Your task to perform on an android device: Clear the shopping cart on newegg.com. Search for alienware aurora on newegg.com, select the first entry, add it to the cart, then select checkout. Image 0: 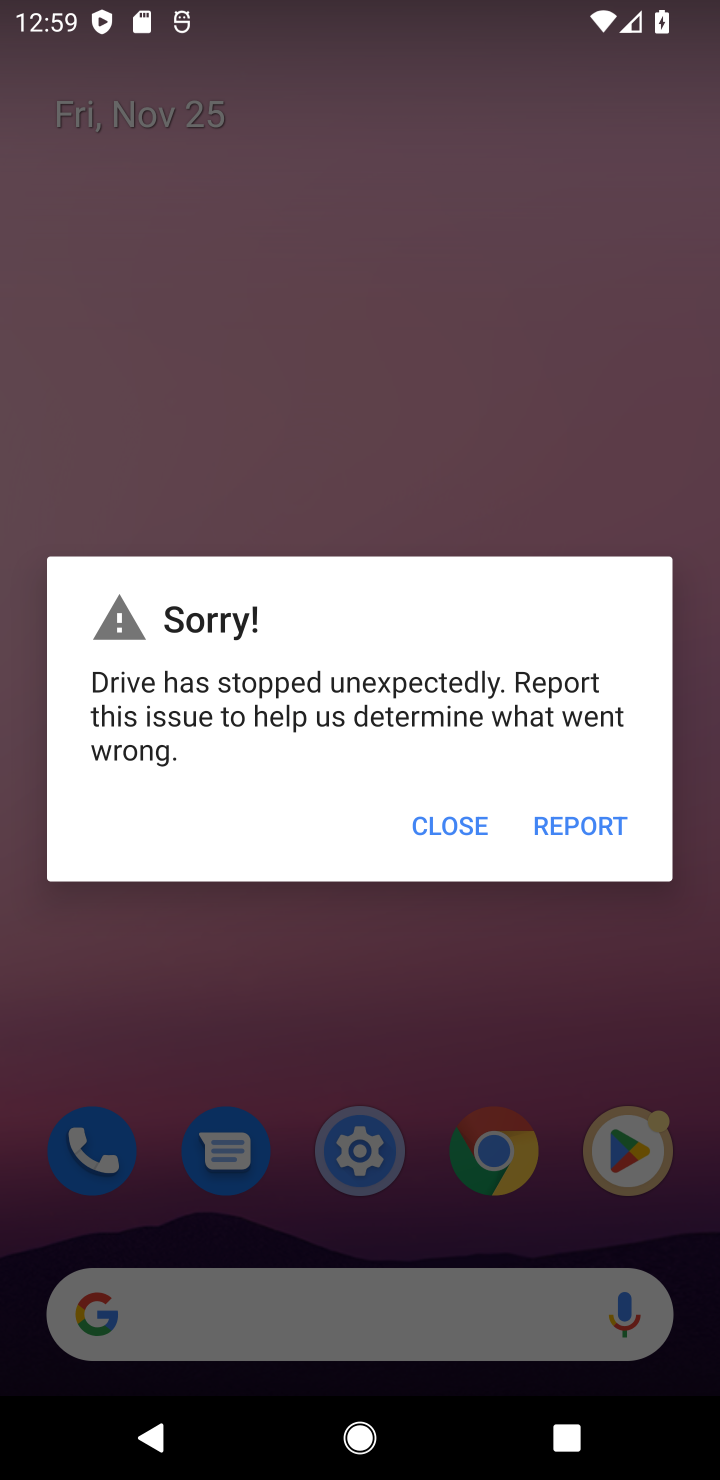
Step 0: click (471, 832)
Your task to perform on an android device: Clear the shopping cart on newegg.com. Search for alienware aurora on newegg.com, select the first entry, add it to the cart, then select checkout. Image 1: 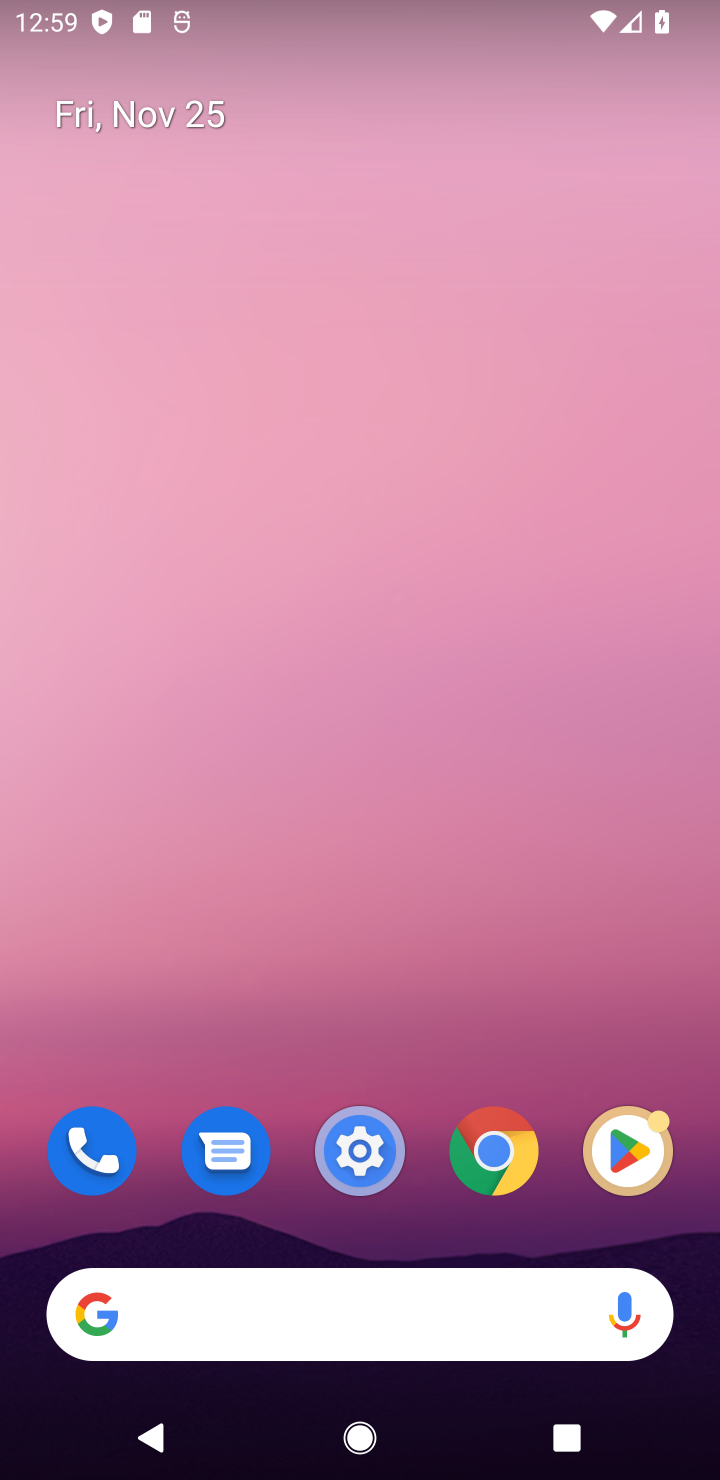
Step 1: click (421, 1295)
Your task to perform on an android device: Clear the shopping cart on newegg.com. Search for alienware aurora on newegg.com, select the first entry, add it to the cart, then select checkout. Image 2: 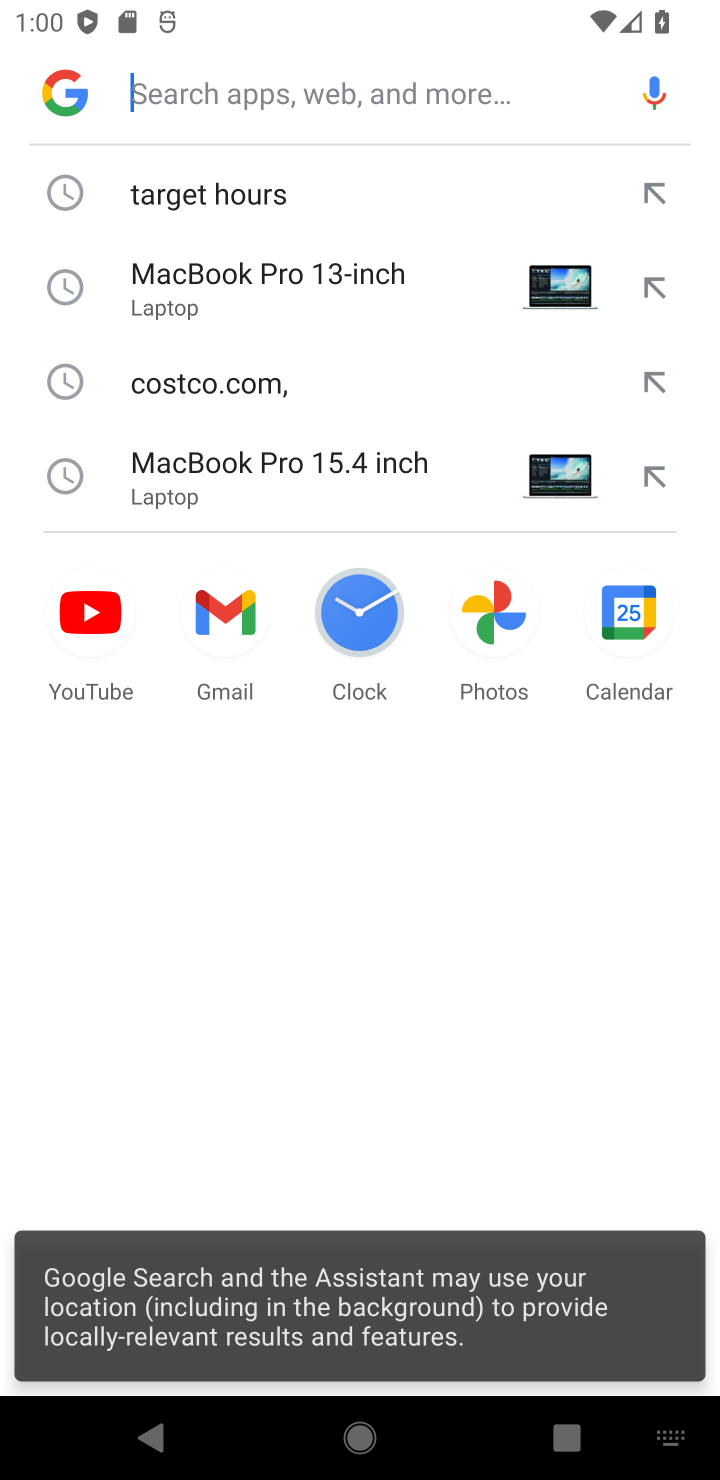
Step 2: type "newegg.com"
Your task to perform on an android device: Clear the shopping cart on newegg.com. Search for alienware aurora on newegg.com, select the first entry, add it to the cart, then select checkout. Image 3: 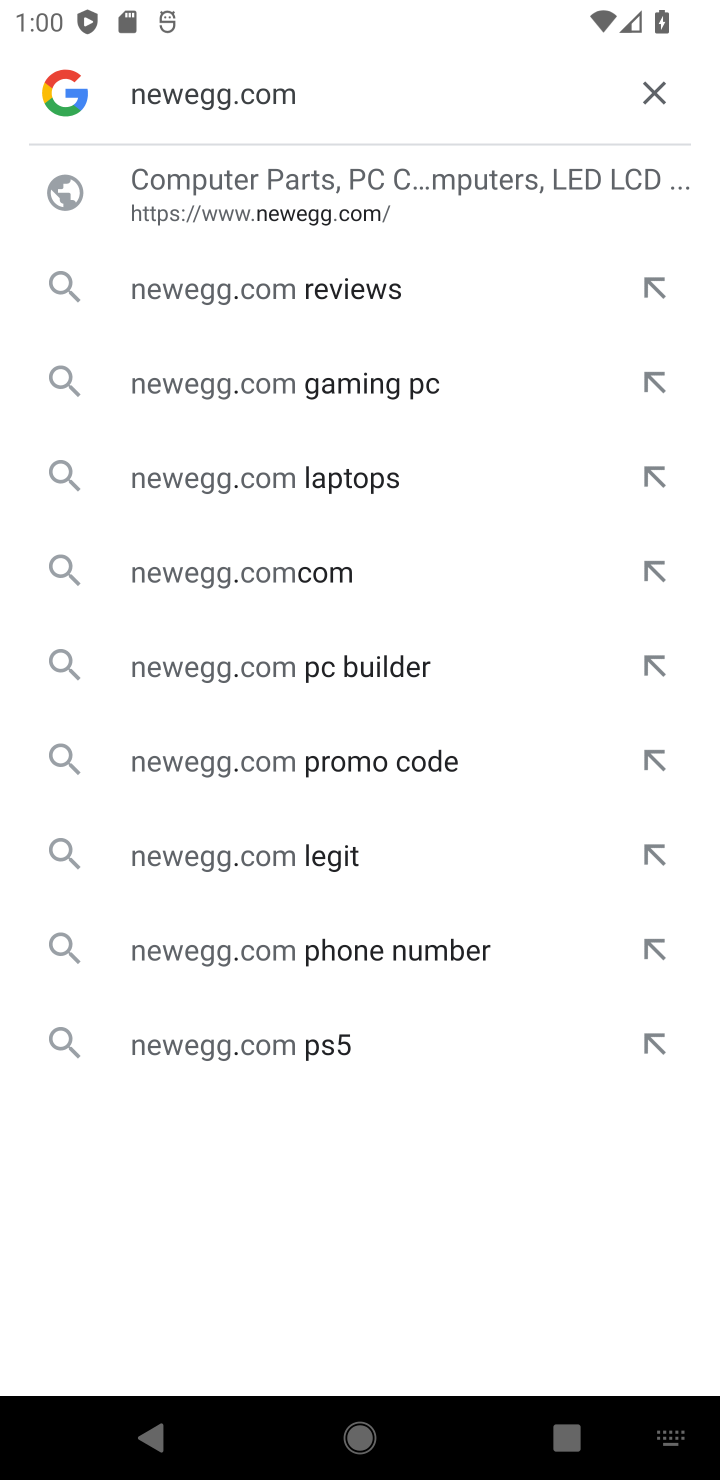
Step 3: click (168, 173)
Your task to perform on an android device: Clear the shopping cart on newegg.com. Search for alienware aurora on newegg.com, select the first entry, add it to the cart, then select checkout. Image 4: 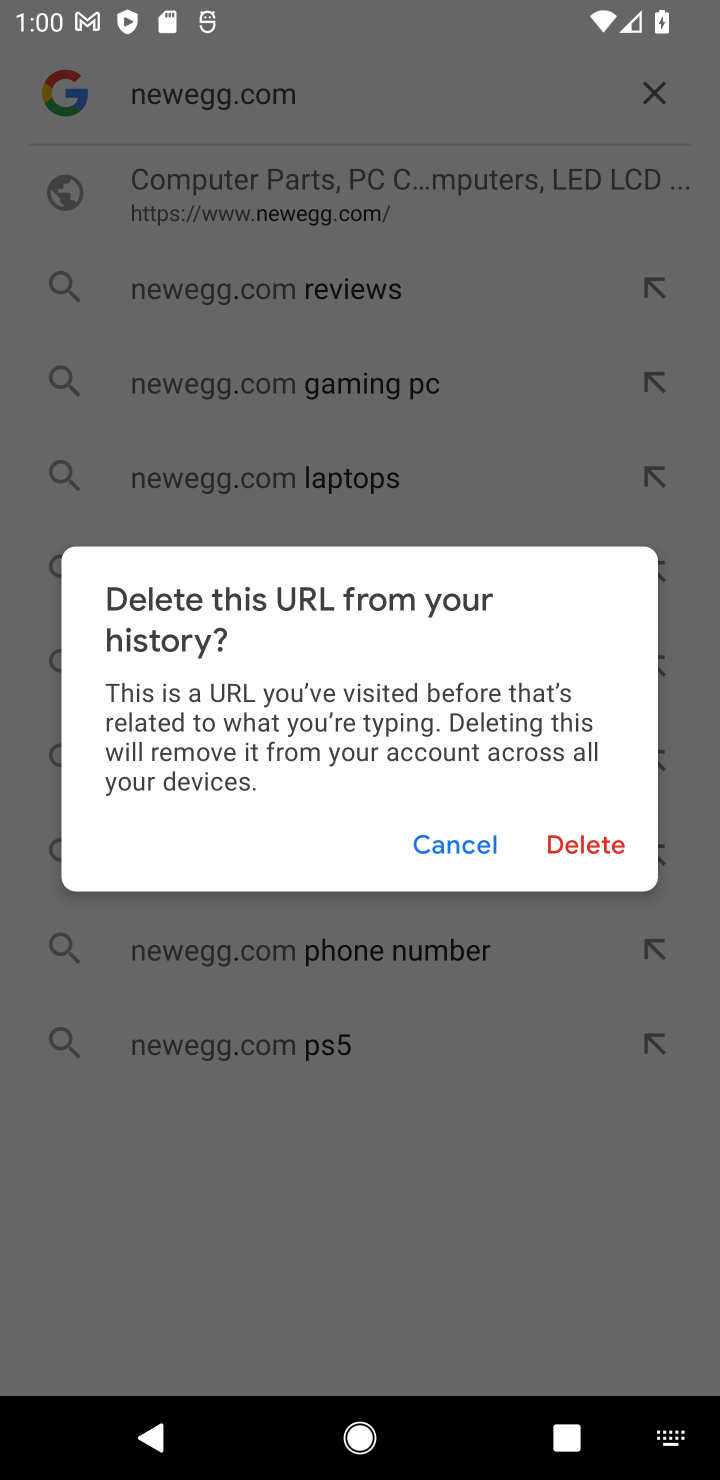
Step 4: click (480, 840)
Your task to perform on an android device: Clear the shopping cart on newegg.com. Search for alienware aurora on newegg.com, select the first entry, add it to the cart, then select checkout. Image 5: 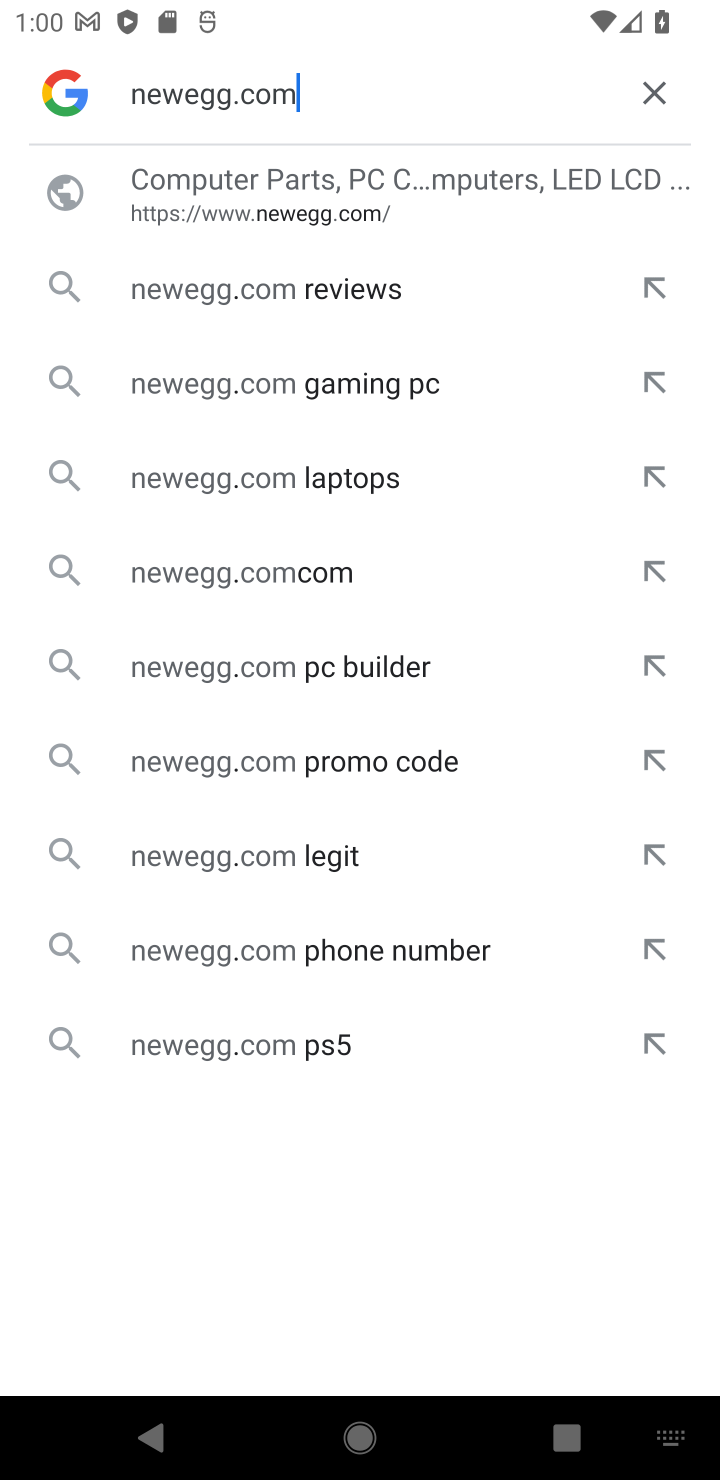
Step 5: click (277, 203)
Your task to perform on an android device: Clear the shopping cart on newegg.com. Search for alienware aurora on newegg.com, select the first entry, add it to the cart, then select checkout. Image 6: 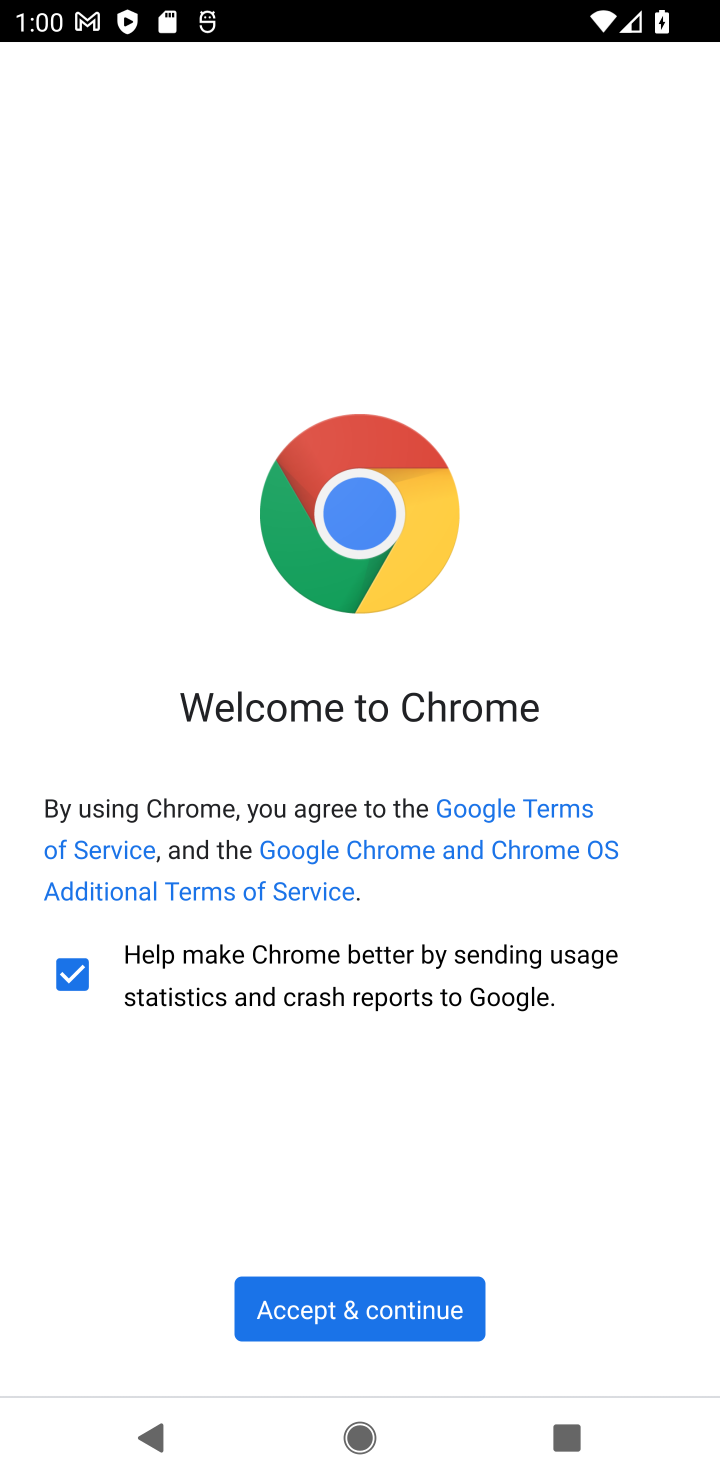
Step 6: click (406, 1317)
Your task to perform on an android device: Clear the shopping cart on newegg.com. Search for alienware aurora on newegg.com, select the first entry, add it to the cart, then select checkout. Image 7: 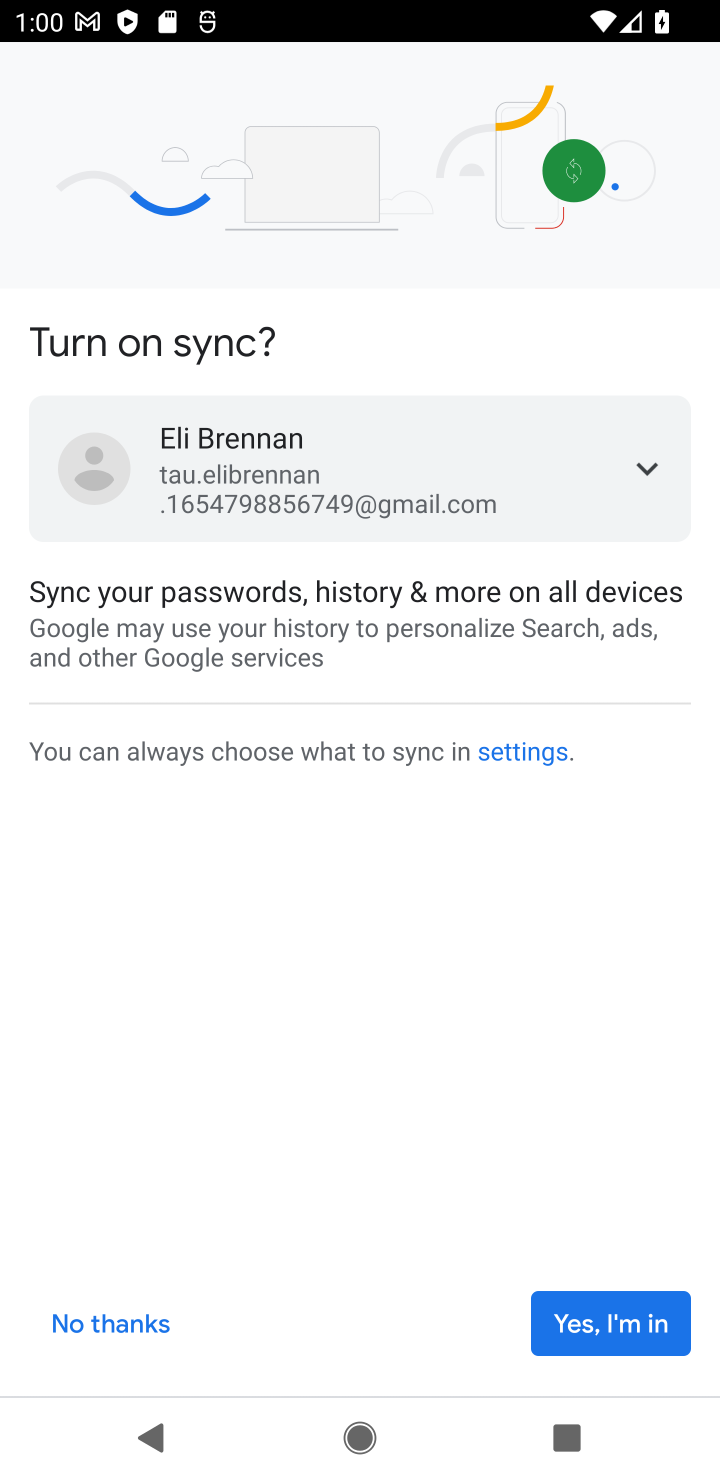
Step 7: click (645, 1314)
Your task to perform on an android device: Clear the shopping cart on newegg.com. Search for alienware aurora on newegg.com, select the first entry, add it to the cart, then select checkout. Image 8: 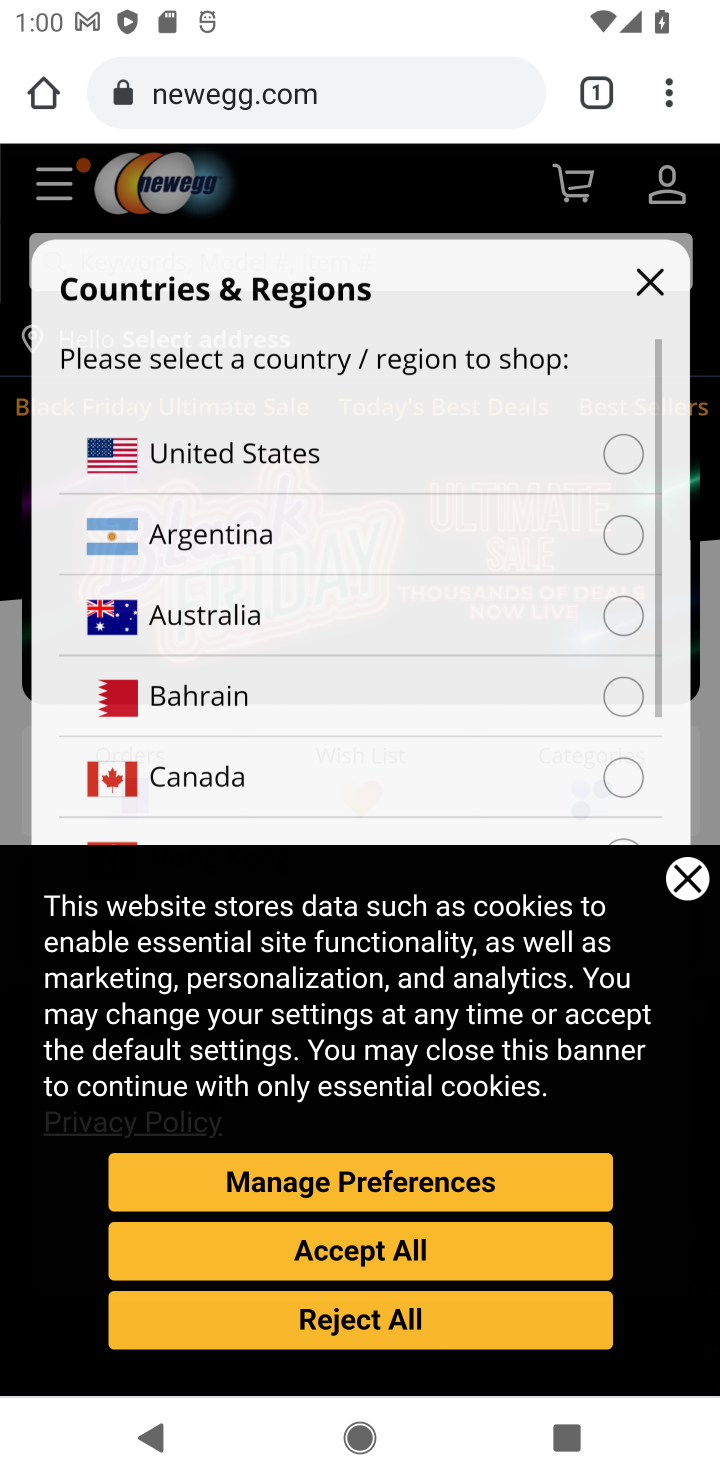
Step 8: click (680, 892)
Your task to perform on an android device: Clear the shopping cart on newegg.com. Search for alienware aurora on newegg.com, select the first entry, add it to the cart, then select checkout. Image 9: 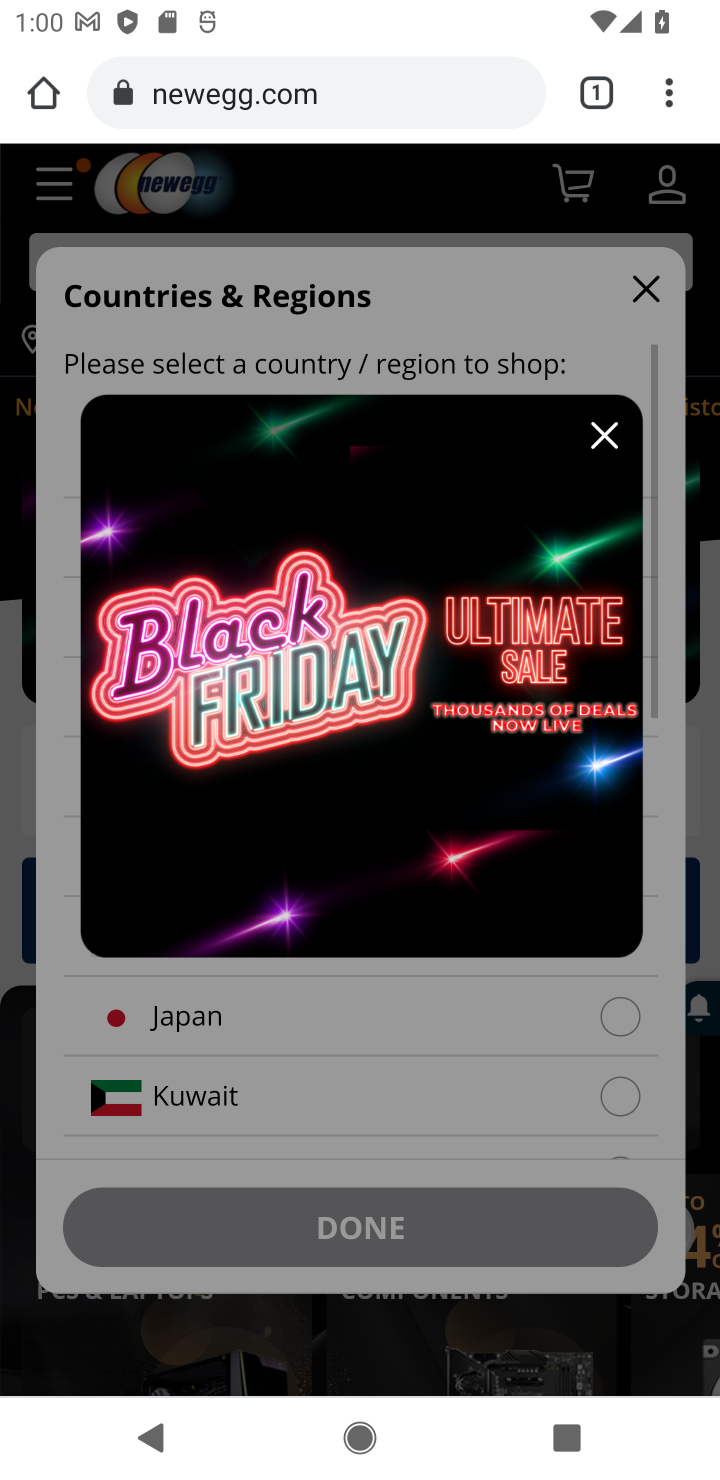
Step 9: press home button
Your task to perform on an android device: Clear the shopping cart on newegg.com. Search for alienware aurora on newegg.com, select the first entry, add it to the cart, then select checkout. Image 10: 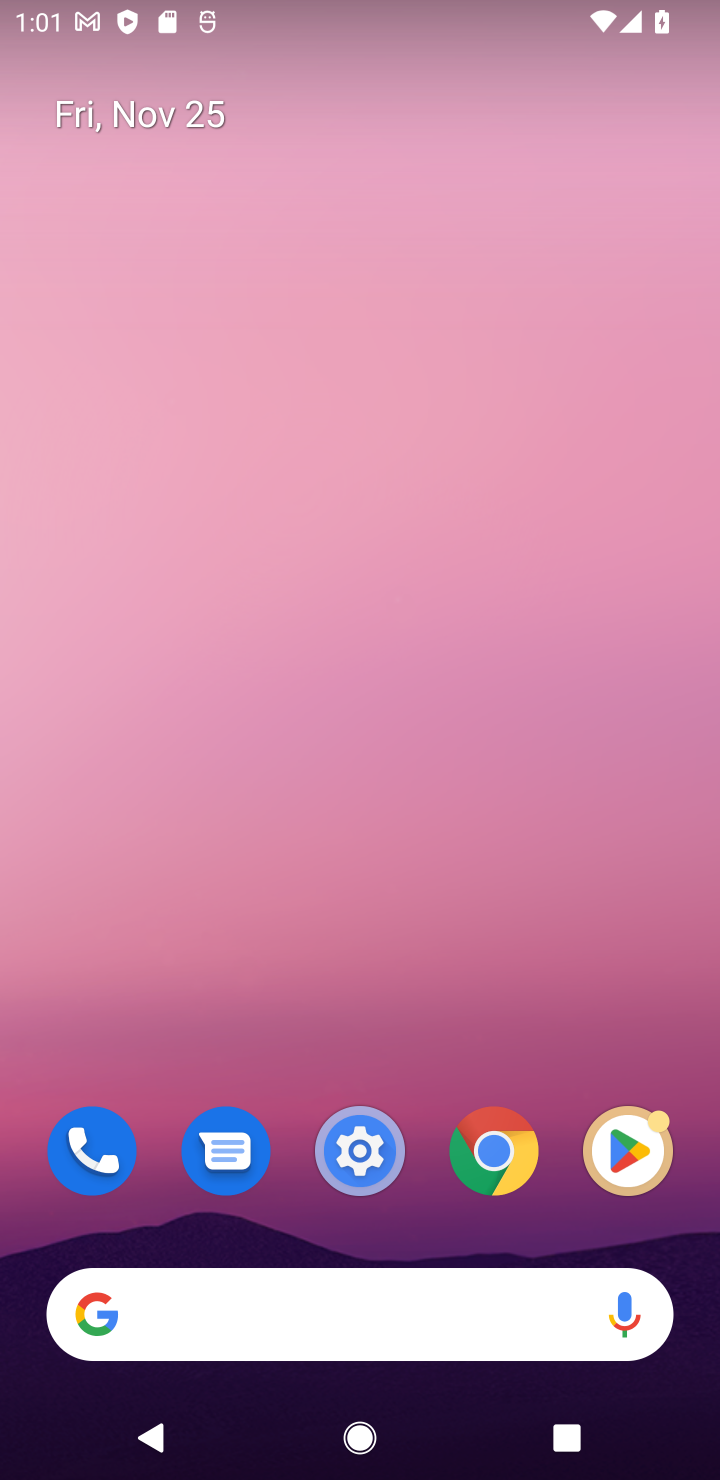
Step 10: click (373, 1294)
Your task to perform on an android device: Clear the shopping cart on newegg.com. Search for alienware aurora on newegg.com, select the first entry, add it to the cart, then select checkout. Image 11: 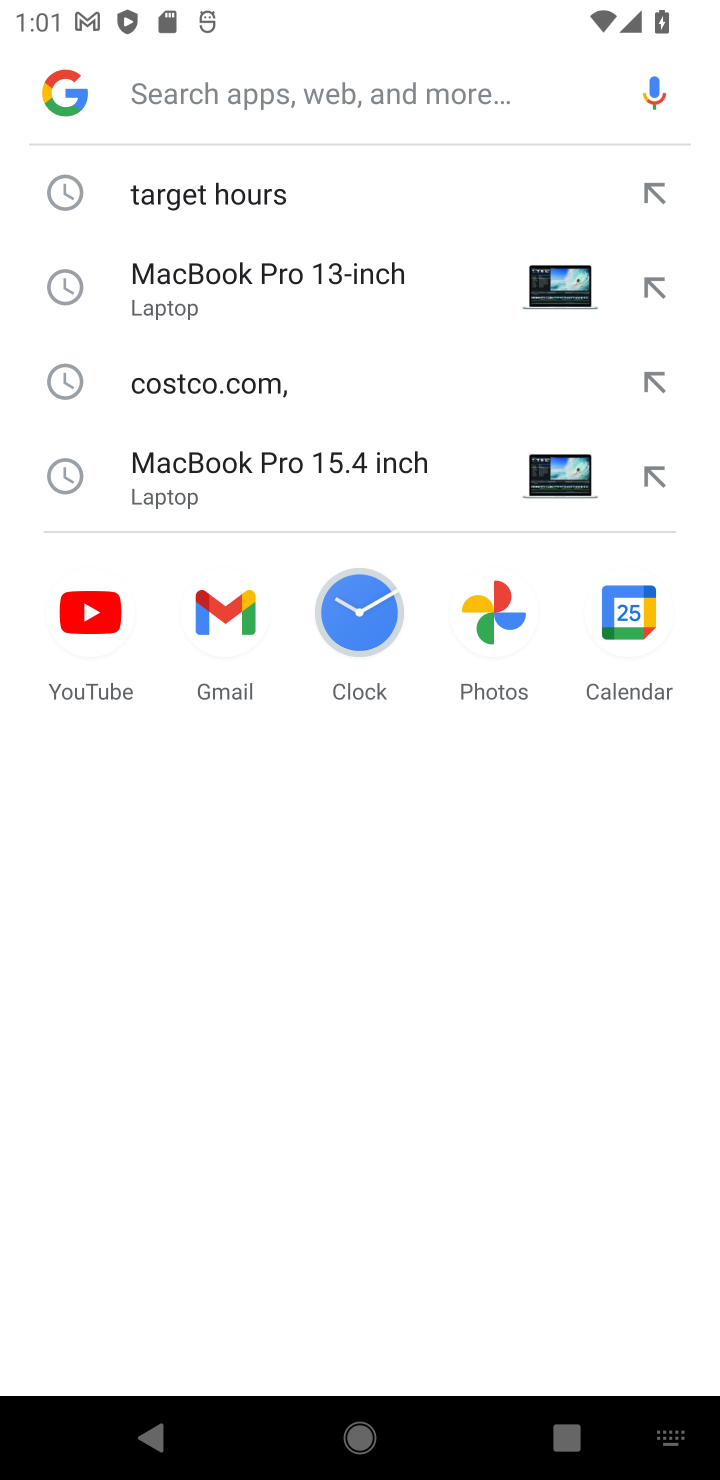
Step 11: type "newegg"
Your task to perform on an android device: Clear the shopping cart on newegg.com. Search for alienware aurora on newegg.com, select the first entry, add it to the cart, then select checkout. Image 12: 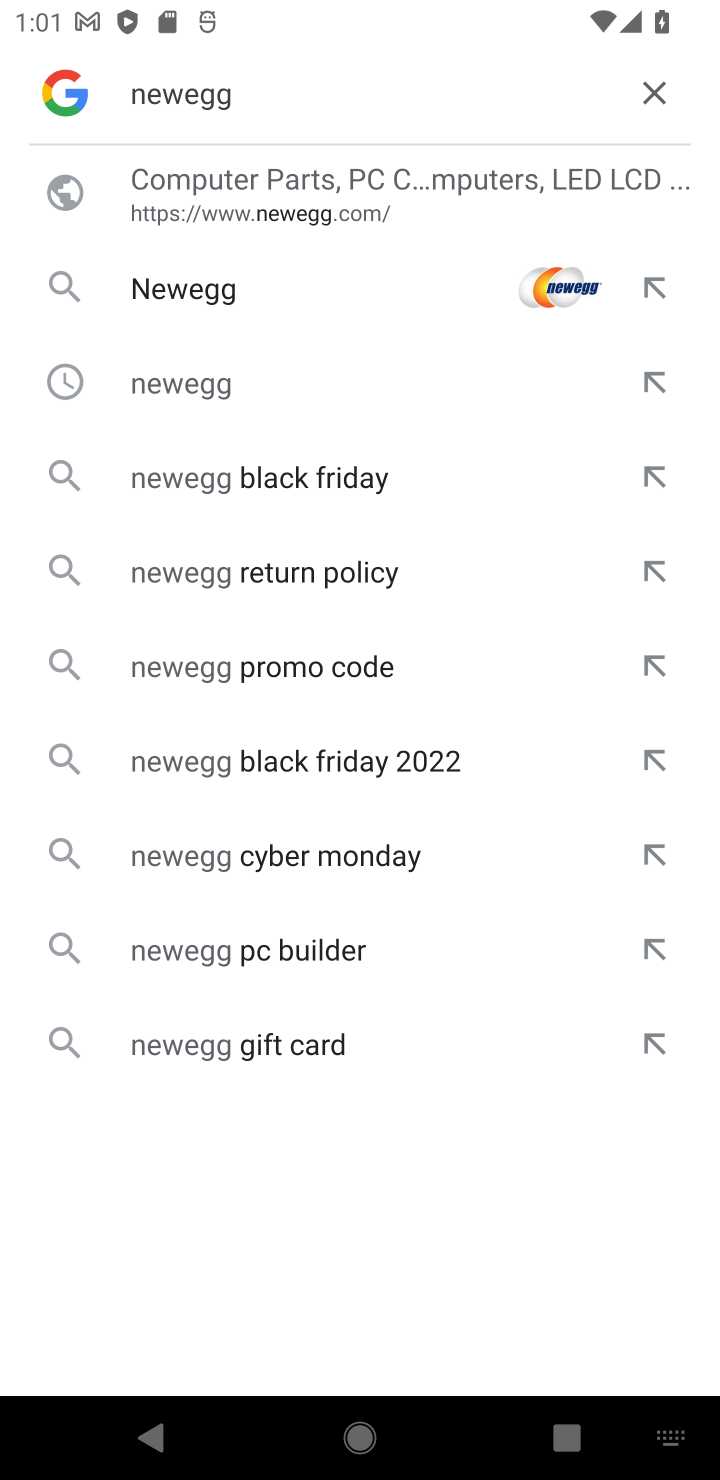
Step 12: click (275, 321)
Your task to perform on an android device: Clear the shopping cart on newegg.com. Search for alienware aurora on newegg.com, select the first entry, add it to the cart, then select checkout. Image 13: 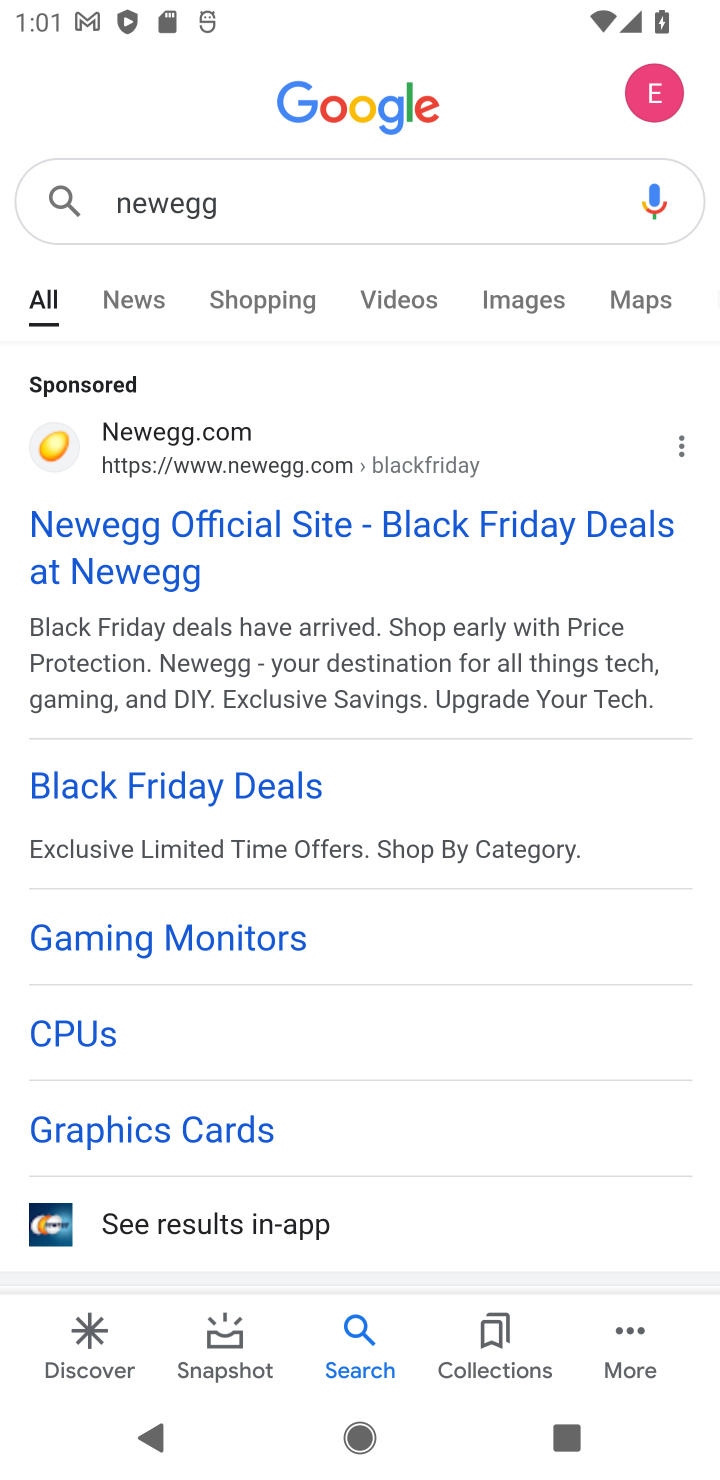
Step 13: click (152, 523)
Your task to perform on an android device: Clear the shopping cart on newegg.com. Search for alienware aurora on newegg.com, select the first entry, add it to the cart, then select checkout. Image 14: 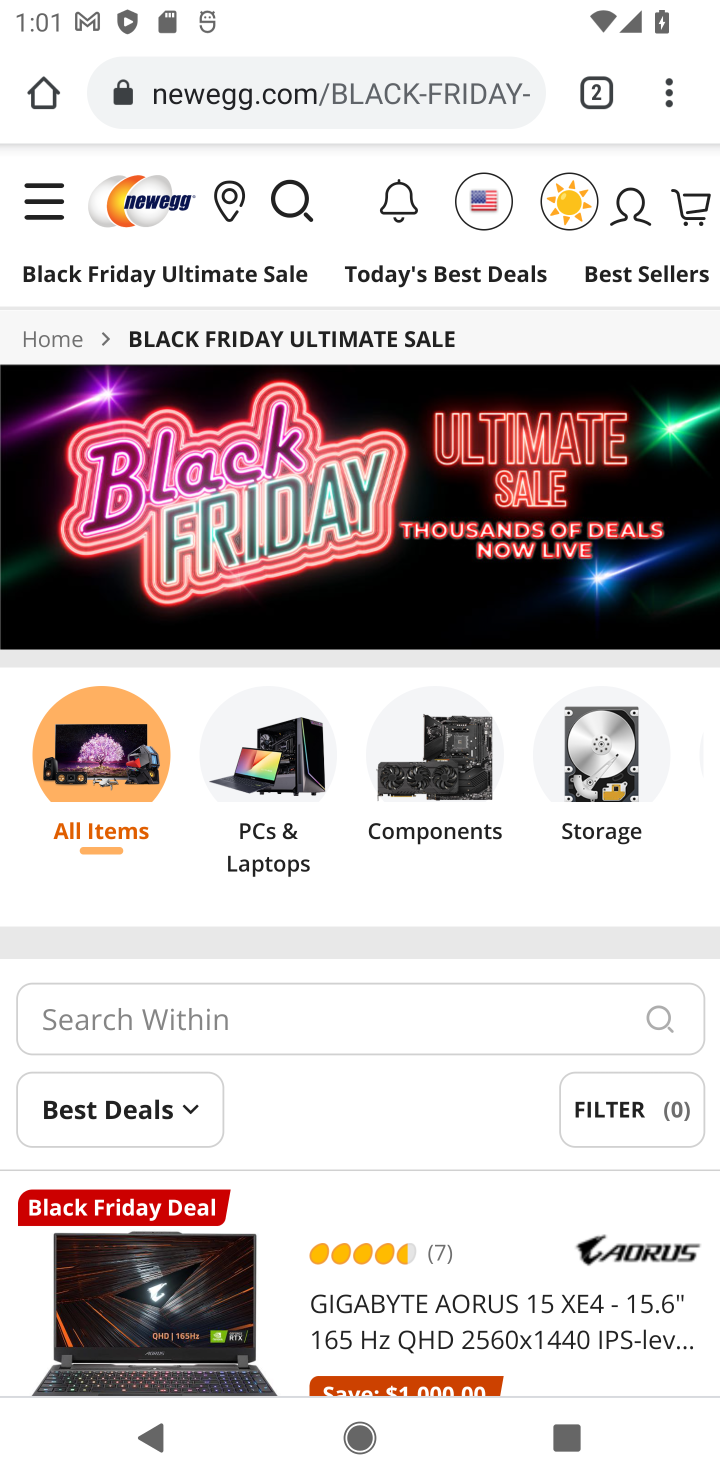
Step 14: click (287, 222)
Your task to perform on an android device: Clear the shopping cart on newegg.com. Search for alienware aurora on newegg.com, select the first entry, add it to the cart, then select checkout. Image 15: 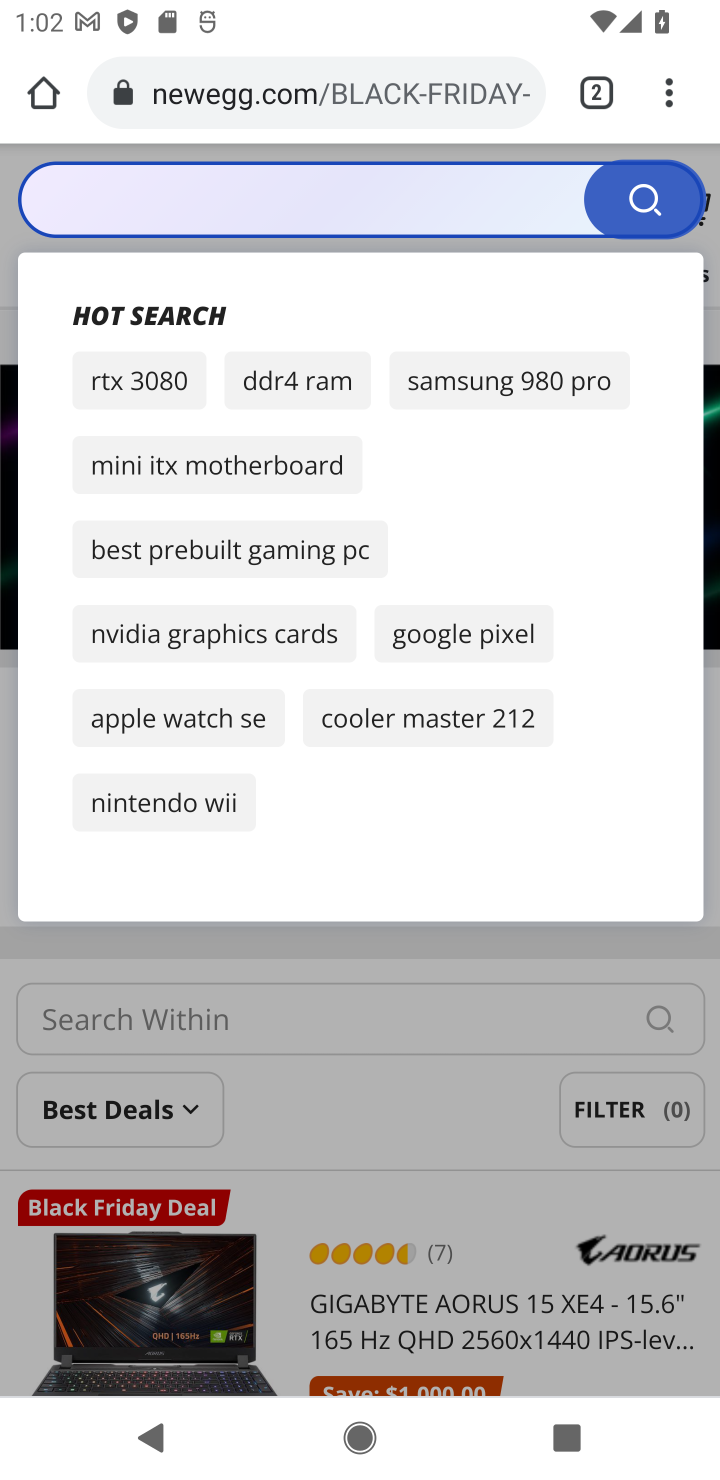
Step 15: type "alienware aura"
Your task to perform on an android device: Clear the shopping cart on newegg.com. Search for alienware aurora on newegg.com, select the first entry, add it to the cart, then select checkout. Image 16: 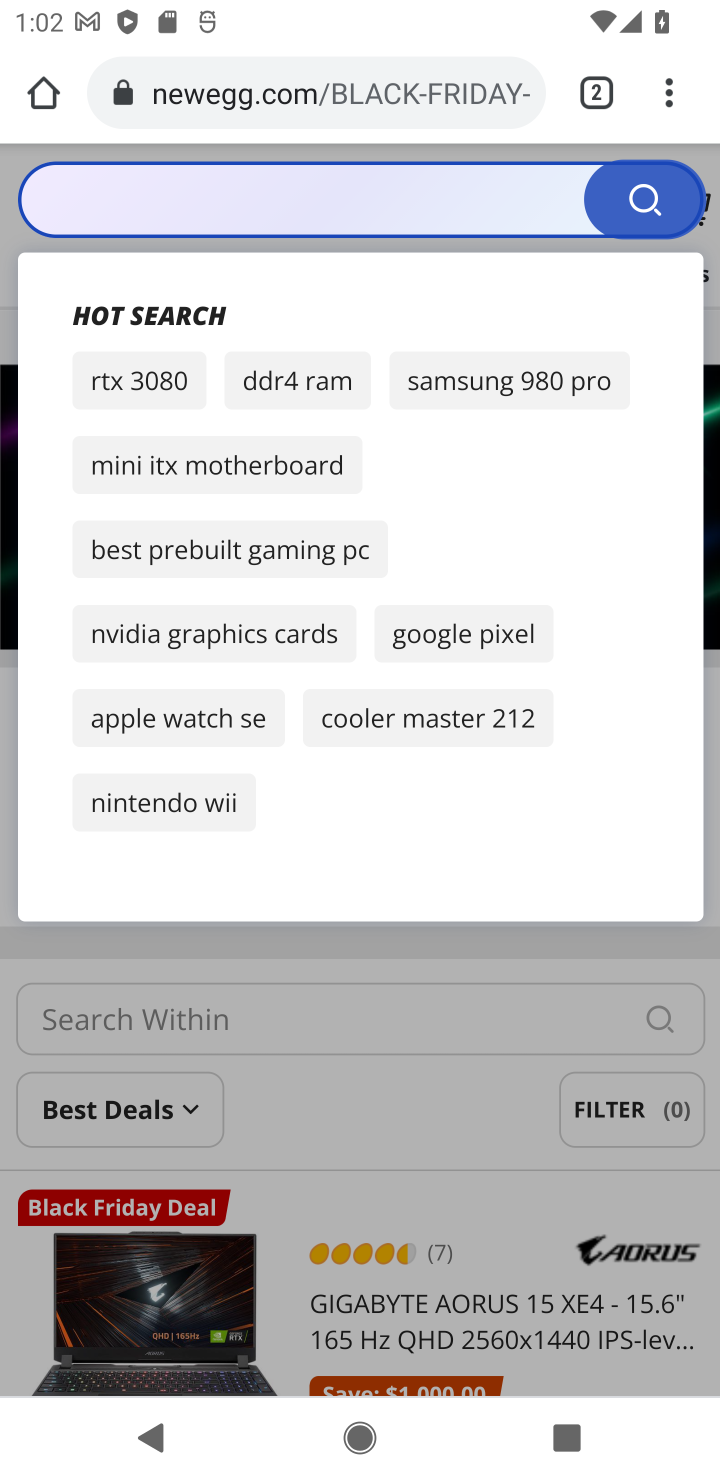
Step 16: click (271, 219)
Your task to perform on an android device: Clear the shopping cart on newegg.com. Search for alienware aurora on newegg.com, select the first entry, add it to the cart, then select checkout. Image 17: 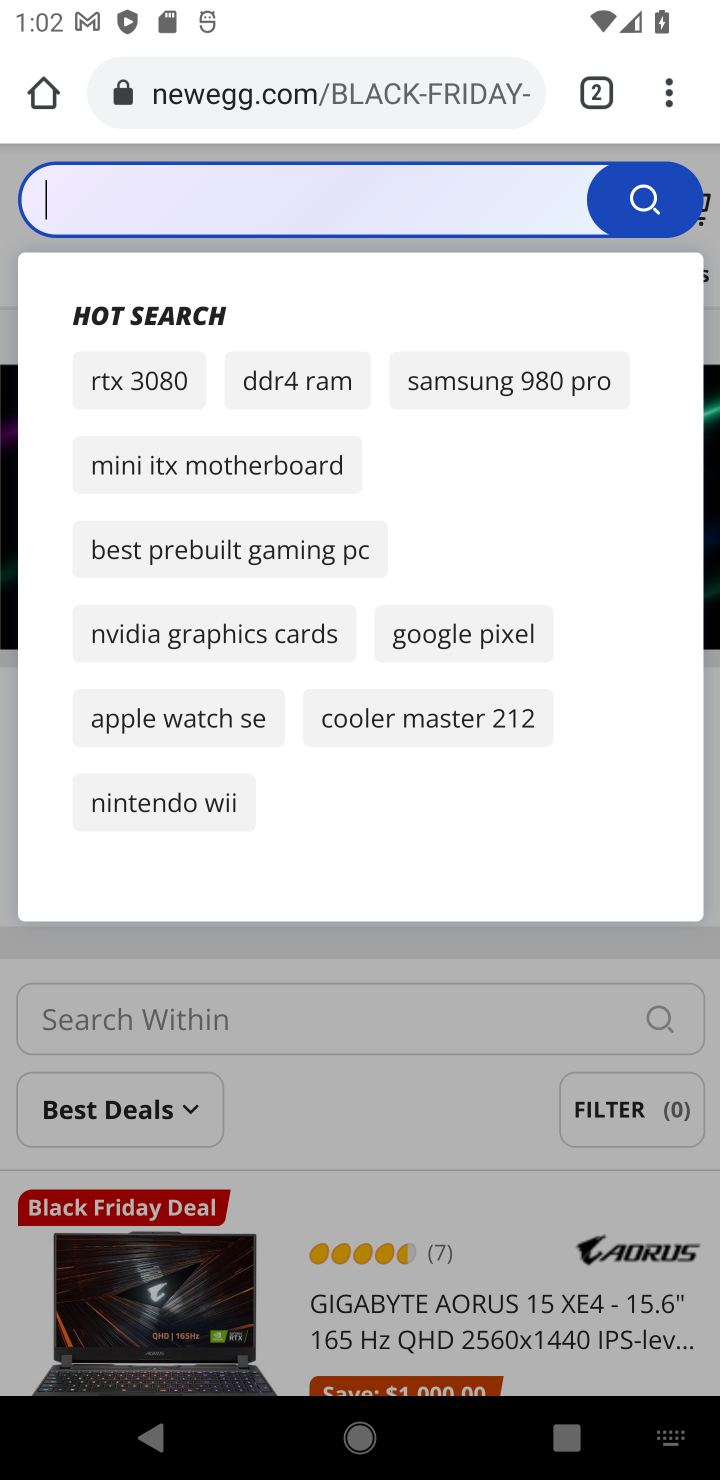
Step 17: type "alienware auro"
Your task to perform on an android device: Clear the shopping cart on newegg.com. Search for alienware aurora on newegg.com, select the first entry, add it to the cart, then select checkout. Image 18: 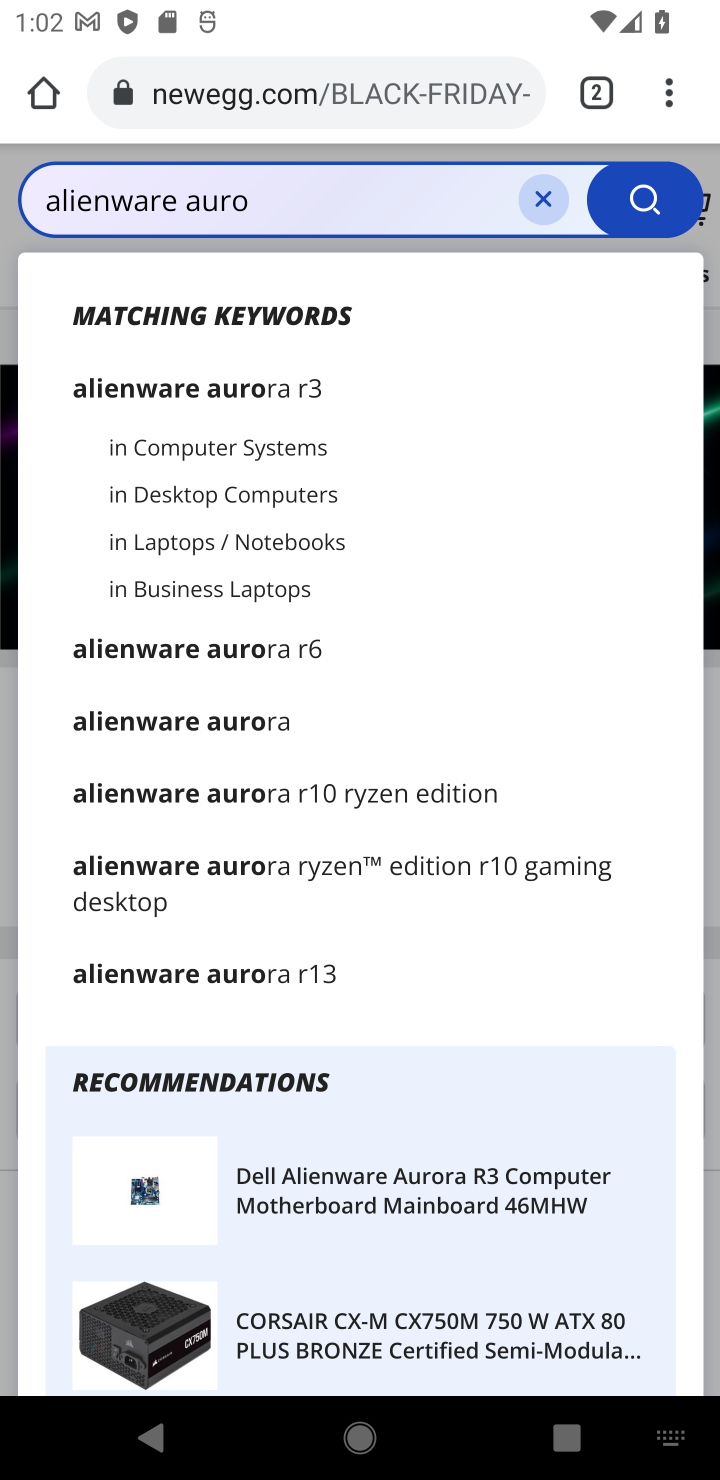
Step 18: click (226, 372)
Your task to perform on an android device: Clear the shopping cart on newegg.com. Search for alienware aurora on newegg.com, select the first entry, add it to the cart, then select checkout. Image 19: 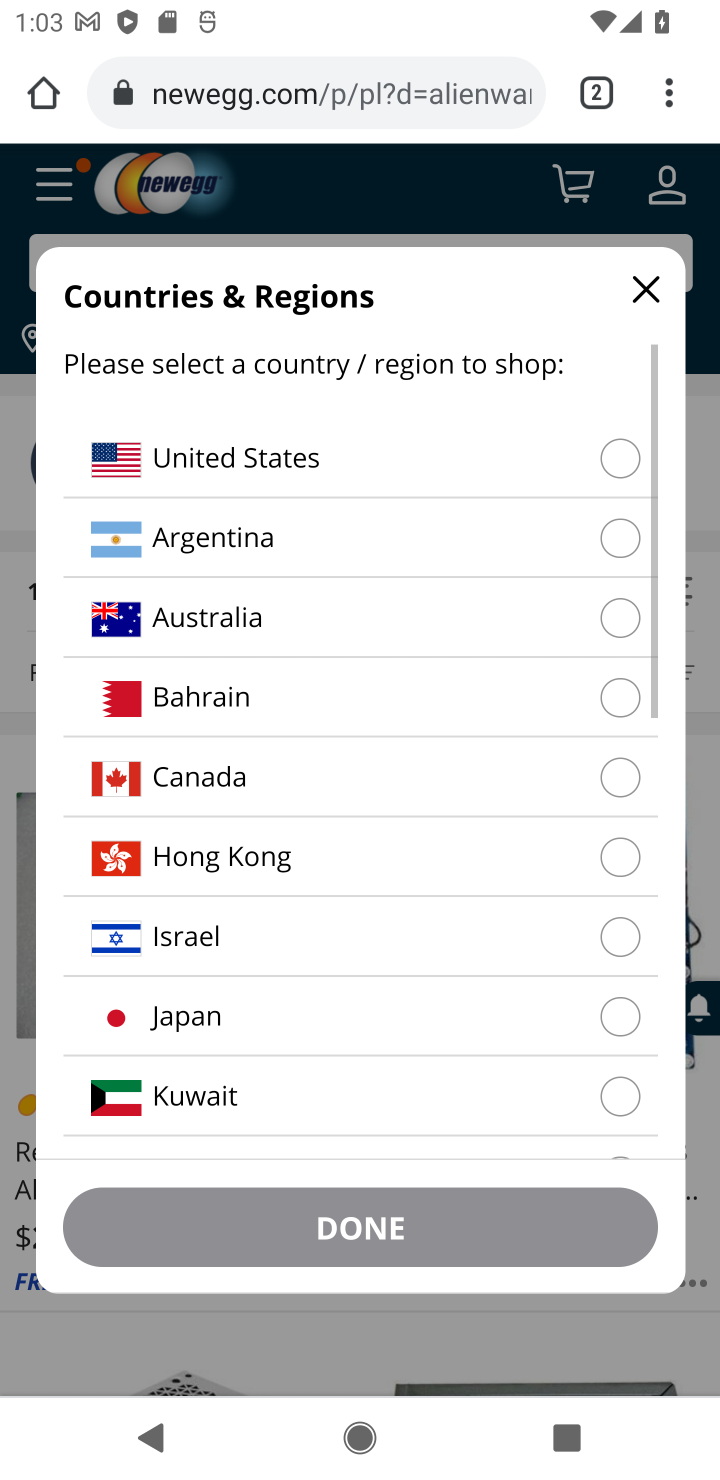
Step 19: click (200, 463)
Your task to perform on an android device: Clear the shopping cart on newegg.com. Search for alienware aurora on newegg.com, select the first entry, add it to the cart, then select checkout. Image 20: 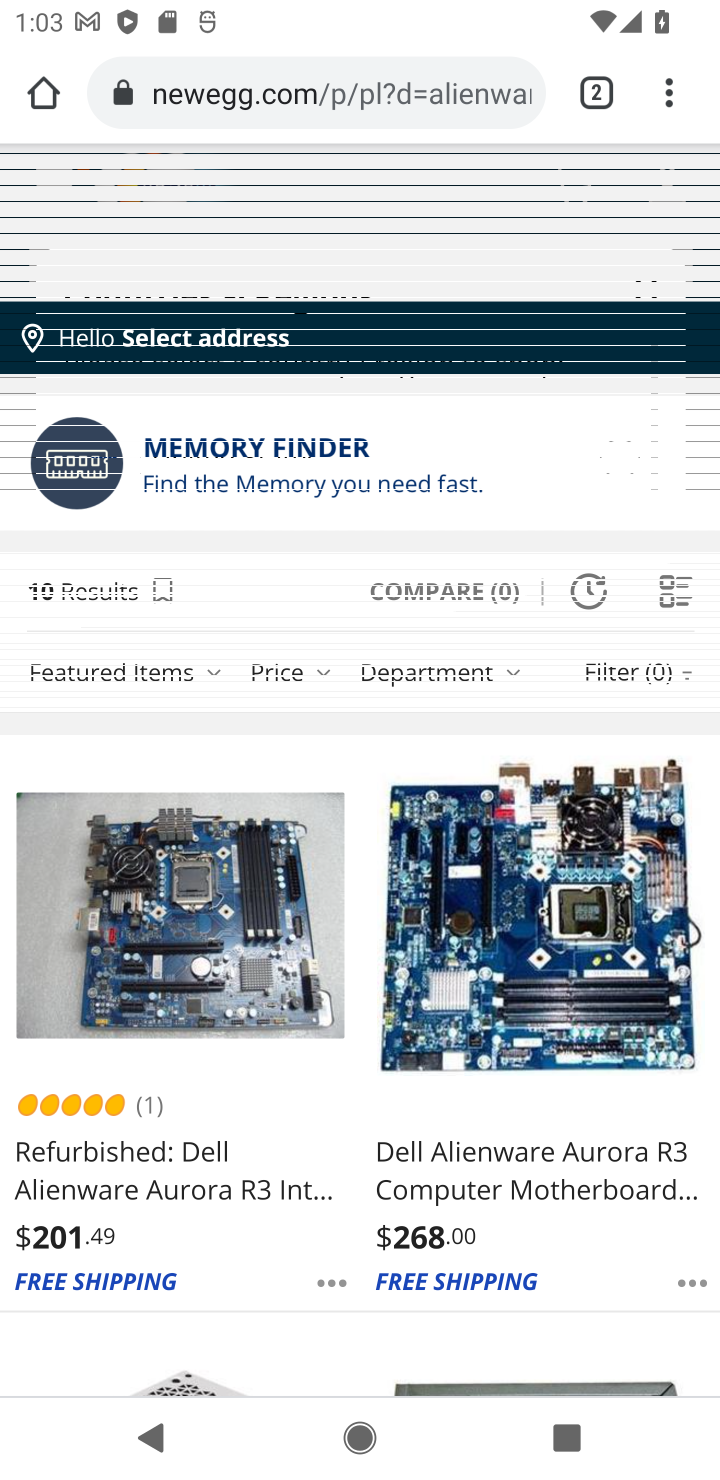
Step 20: task complete